Your task to perform on an android device: manage bookmarks in the chrome app Image 0: 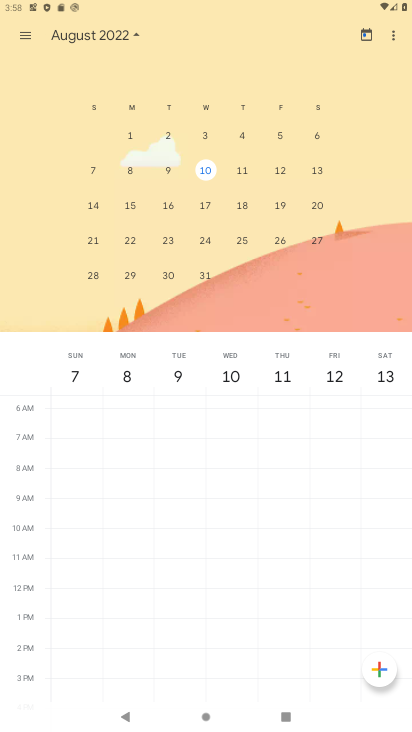
Step 0: press home button
Your task to perform on an android device: manage bookmarks in the chrome app Image 1: 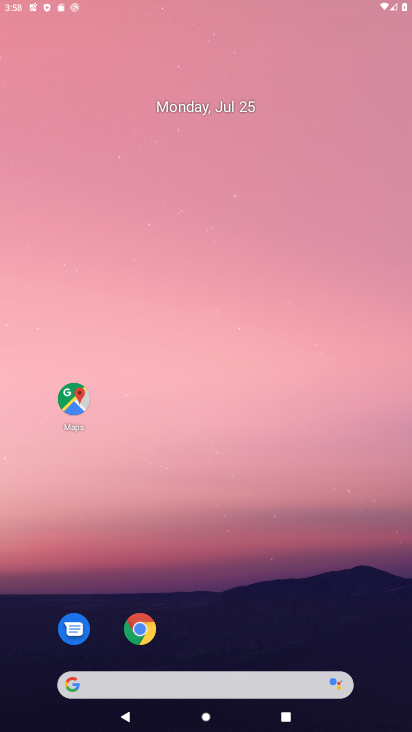
Step 1: drag from (293, 674) to (356, 81)
Your task to perform on an android device: manage bookmarks in the chrome app Image 2: 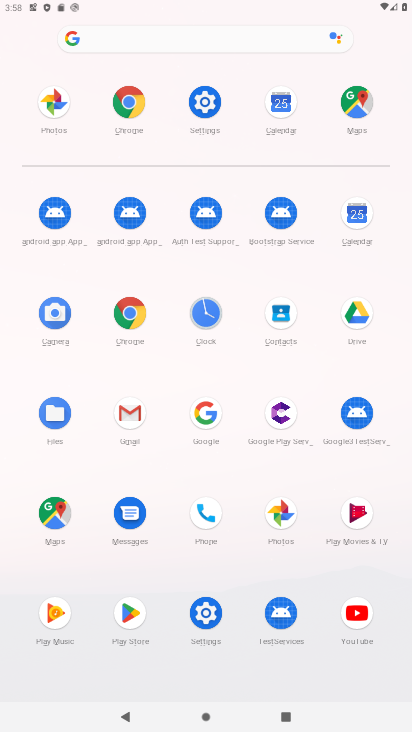
Step 2: click (119, 308)
Your task to perform on an android device: manage bookmarks in the chrome app Image 3: 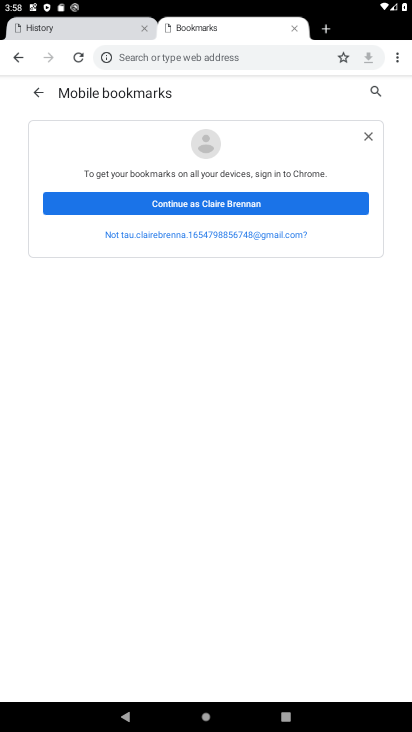
Step 3: task complete